Your task to perform on an android device: What's the weather going to be this weekend? Image 0: 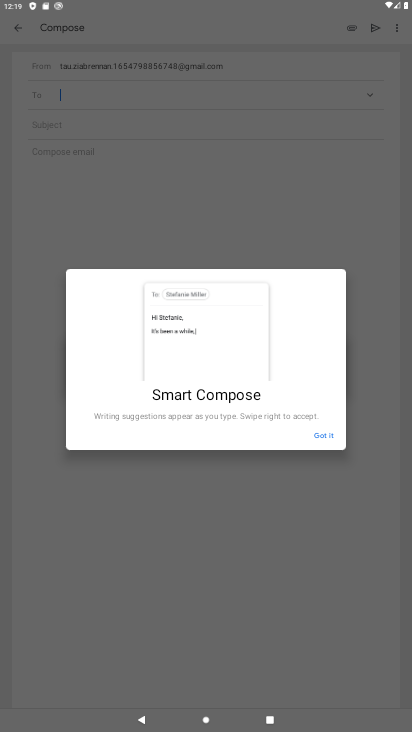
Step 0: press home button
Your task to perform on an android device: What's the weather going to be this weekend? Image 1: 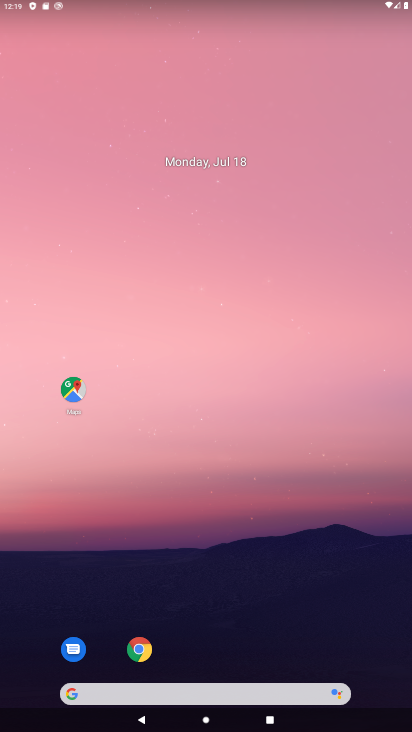
Step 1: drag from (273, 611) to (245, 140)
Your task to perform on an android device: What's the weather going to be this weekend? Image 2: 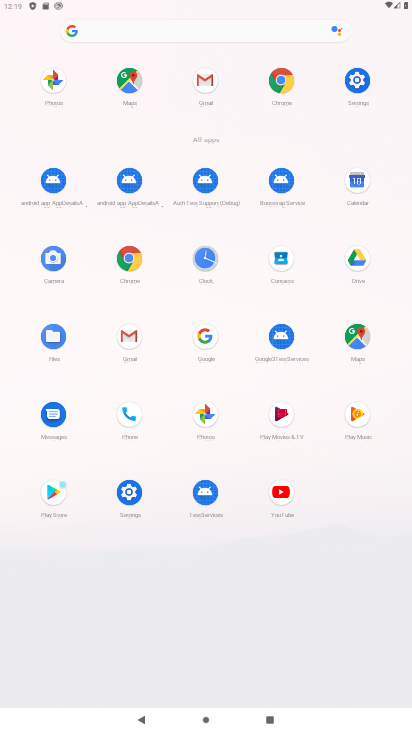
Step 2: click (355, 191)
Your task to perform on an android device: What's the weather going to be this weekend? Image 3: 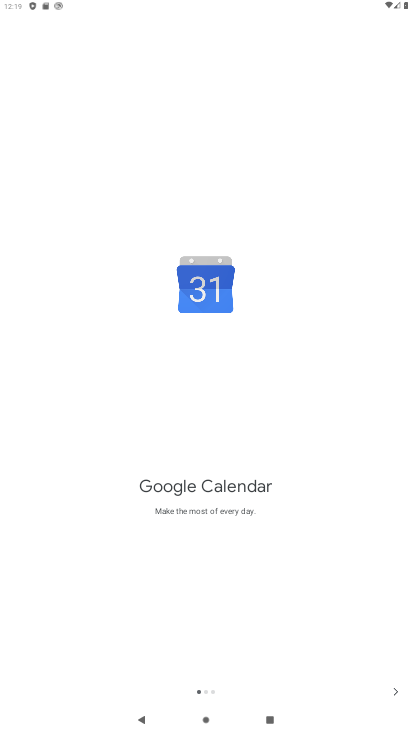
Step 3: press home button
Your task to perform on an android device: What's the weather going to be this weekend? Image 4: 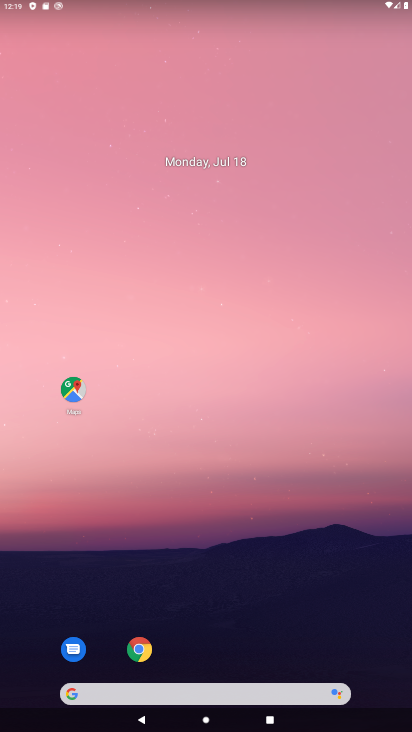
Step 4: drag from (341, 651) to (235, 89)
Your task to perform on an android device: What's the weather going to be this weekend? Image 5: 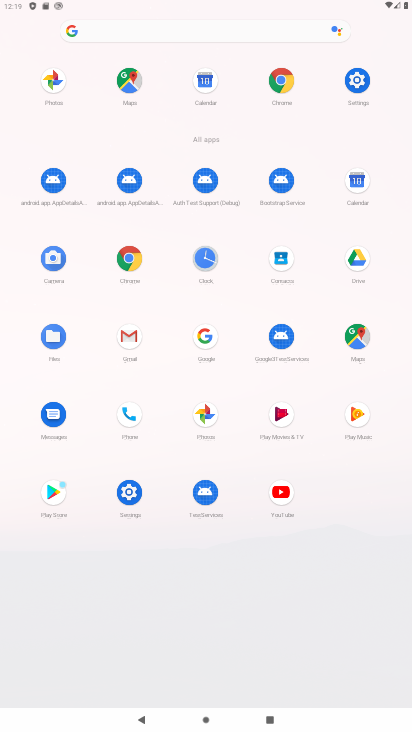
Step 5: click (124, 256)
Your task to perform on an android device: What's the weather going to be this weekend? Image 6: 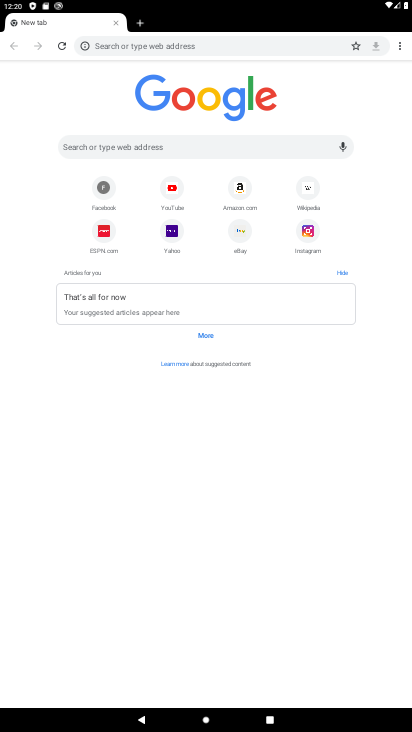
Step 6: click (277, 50)
Your task to perform on an android device: What's the weather going to be this weekend? Image 7: 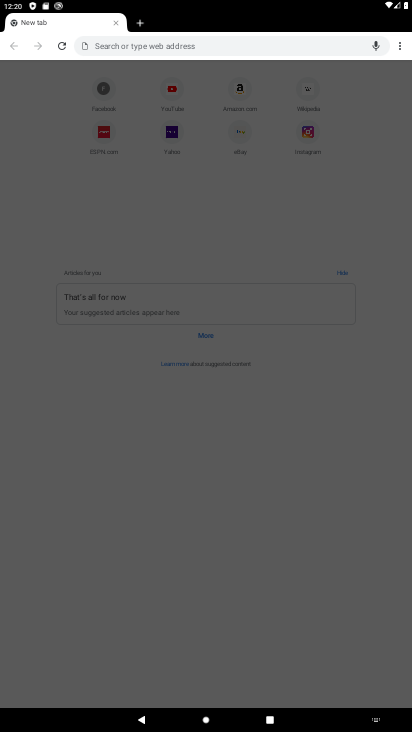
Step 7: type "What's the weather going to be this weekend?"
Your task to perform on an android device: What's the weather going to be this weekend? Image 8: 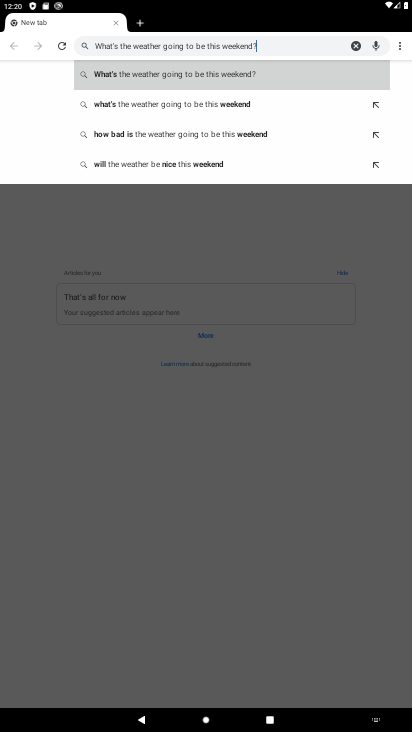
Step 8: click (273, 66)
Your task to perform on an android device: What's the weather going to be this weekend? Image 9: 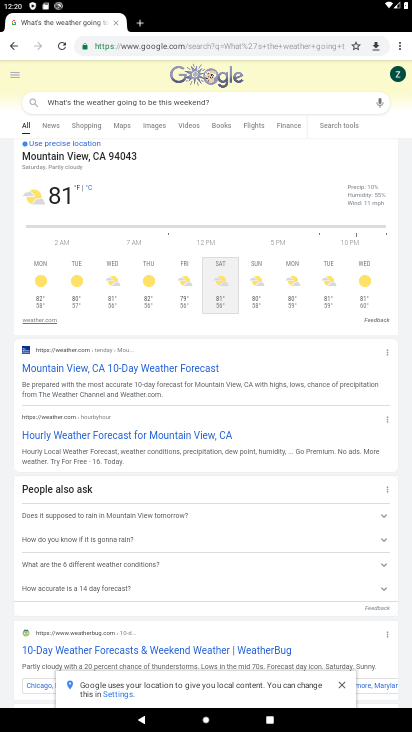
Step 9: task complete